Your task to perform on an android device: Open internet settings Image 0: 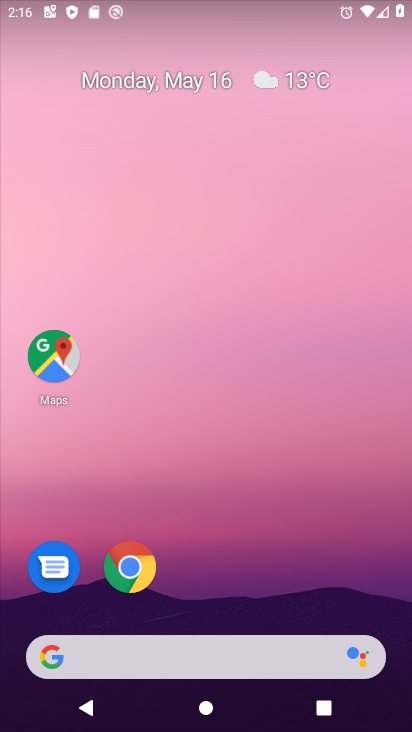
Step 0: press home button
Your task to perform on an android device: Open internet settings Image 1: 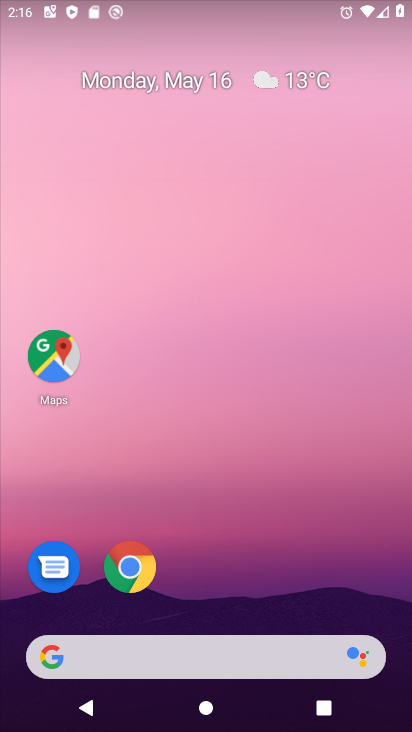
Step 1: drag from (214, 566) to (243, 70)
Your task to perform on an android device: Open internet settings Image 2: 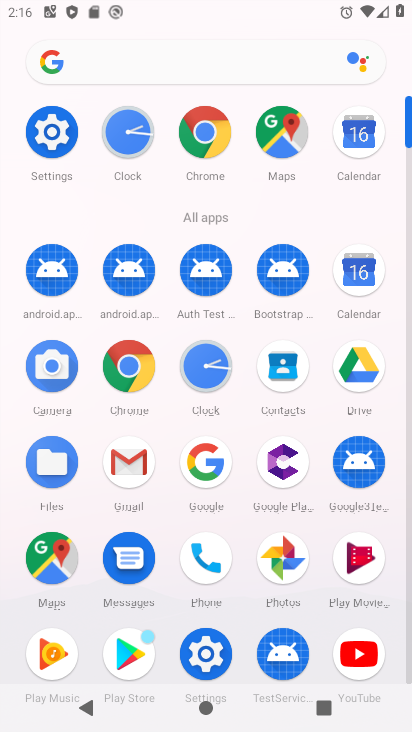
Step 2: click (243, 36)
Your task to perform on an android device: Open internet settings Image 3: 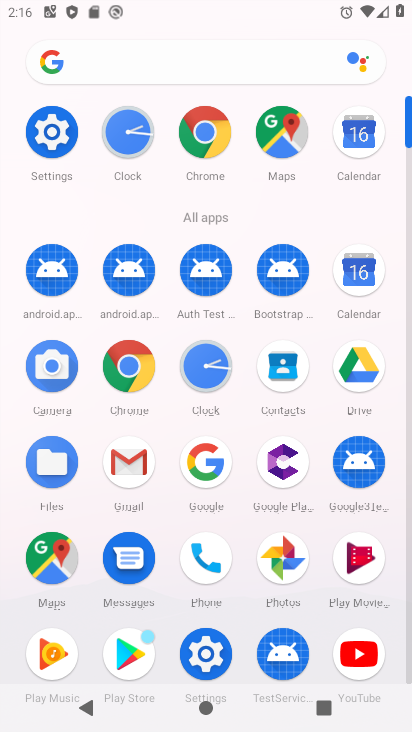
Step 3: click (52, 112)
Your task to perform on an android device: Open internet settings Image 4: 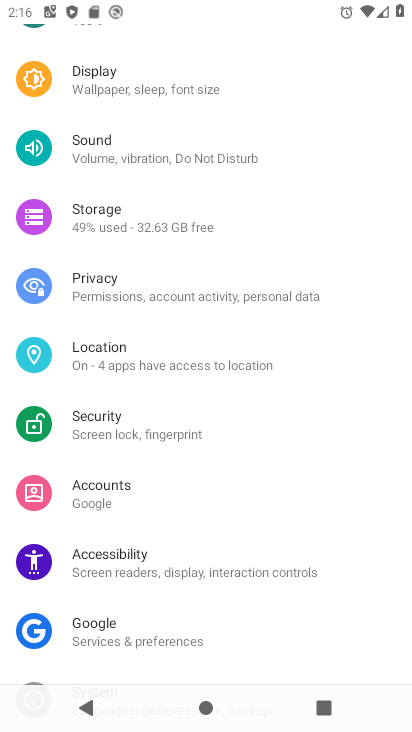
Step 4: drag from (67, 109) to (127, 720)
Your task to perform on an android device: Open internet settings Image 5: 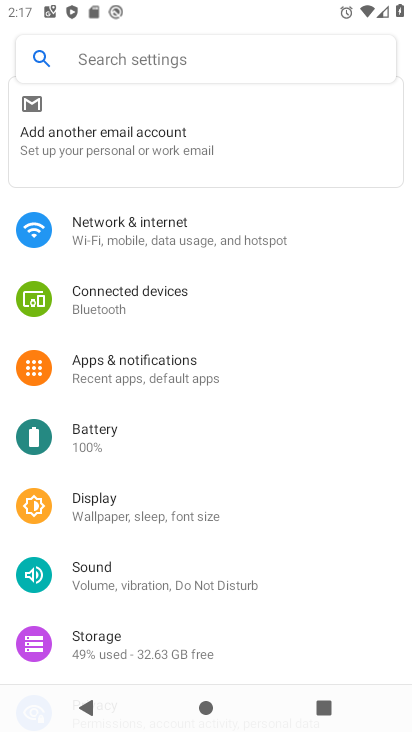
Step 5: click (131, 248)
Your task to perform on an android device: Open internet settings Image 6: 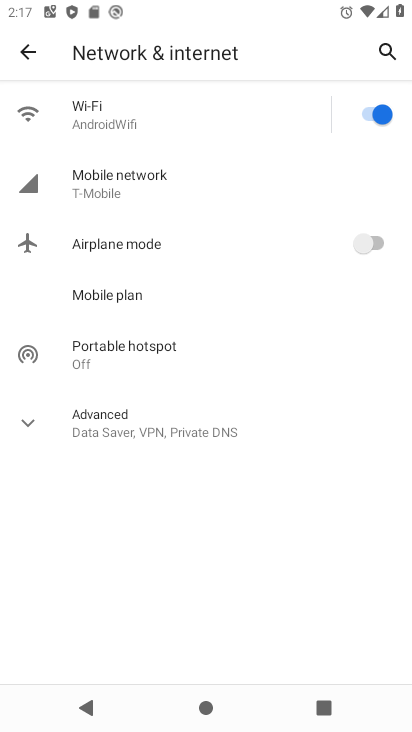
Step 6: task complete